Your task to perform on an android device: toggle sleep mode Image 0: 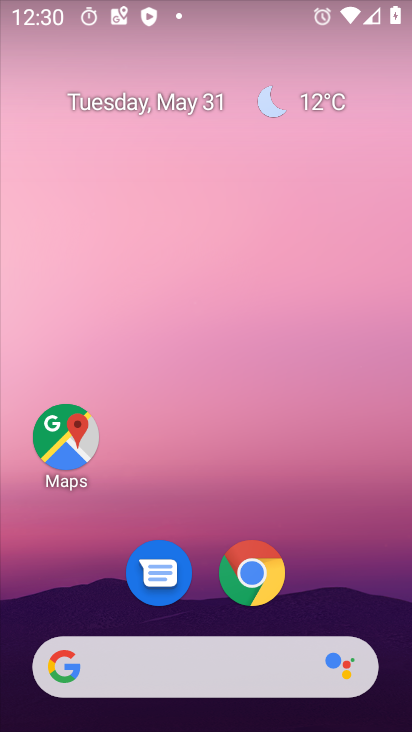
Step 0: drag from (318, 518) to (281, 79)
Your task to perform on an android device: toggle sleep mode Image 1: 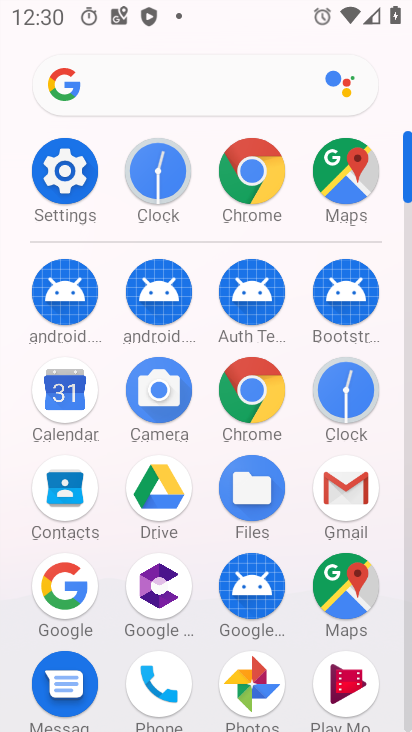
Step 1: click (79, 169)
Your task to perform on an android device: toggle sleep mode Image 2: 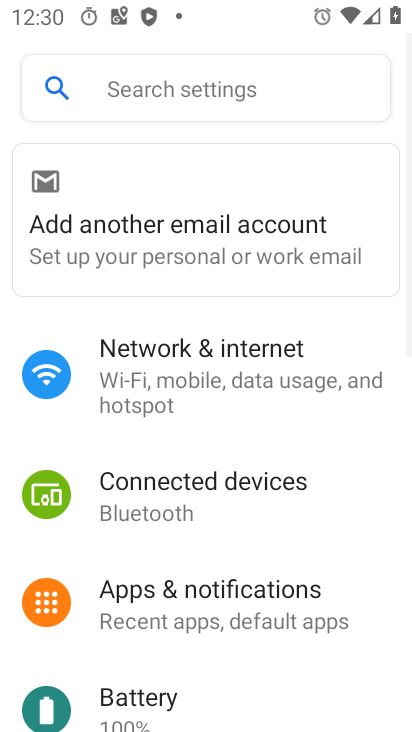
Step 2: drag from (129, 640) to (234, 220)
Your task to perform on an android device: toggle sleep mode Image 3: 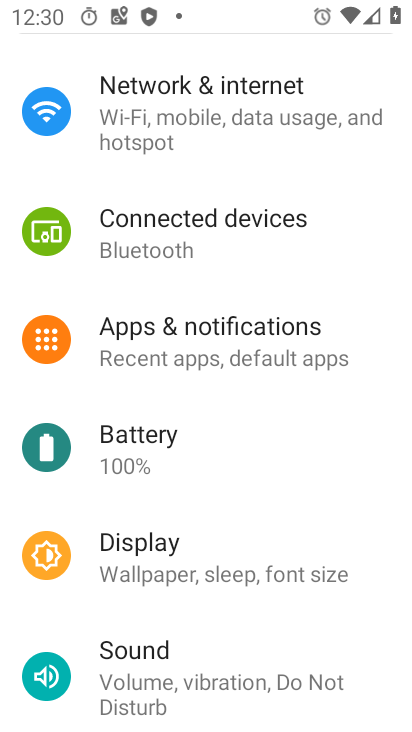
Step 3: click (186, 560)
Your task to perform on an android device: toggle sleep mode Image 4: 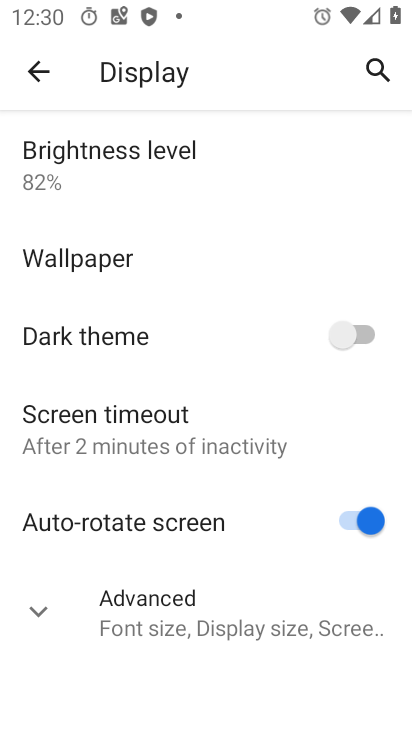
Step 4: click (122, 451)
Your task to perform on an android device: toggle sleep mode Image 5: 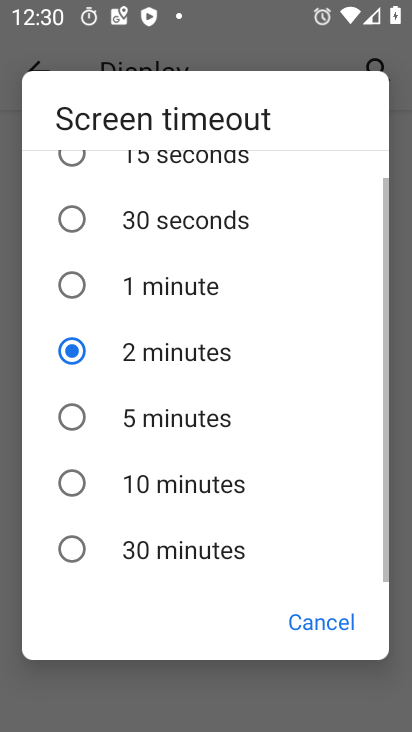
Step 5: click (125, 426)
Your task to perform on an android device: toggle sleep mode Image 6: 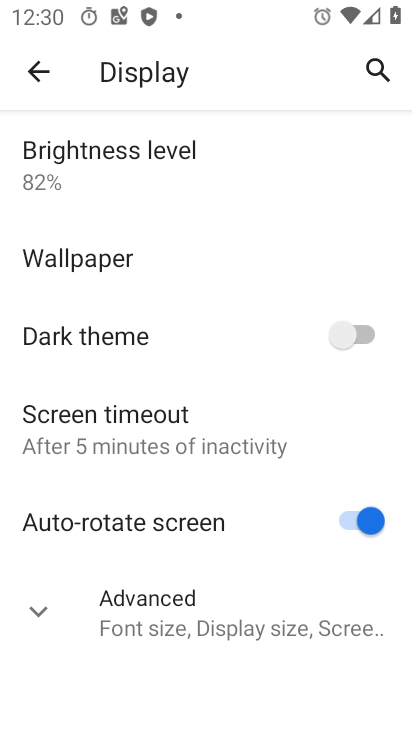
Step 6: task complete